Your task to perform on an android device: Open the calendar app, open the side menu, and click the "Day" option Image 0: 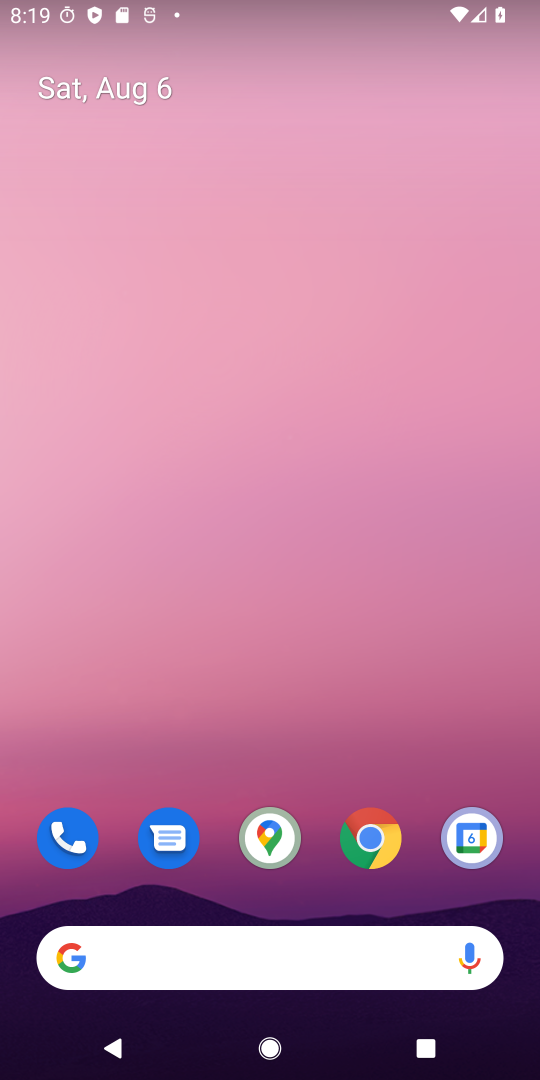
Step 0: click (462, 843)
Your task to perform on an android device: Open the calendar app, open the side menu, and click the "Day" option Image 1: 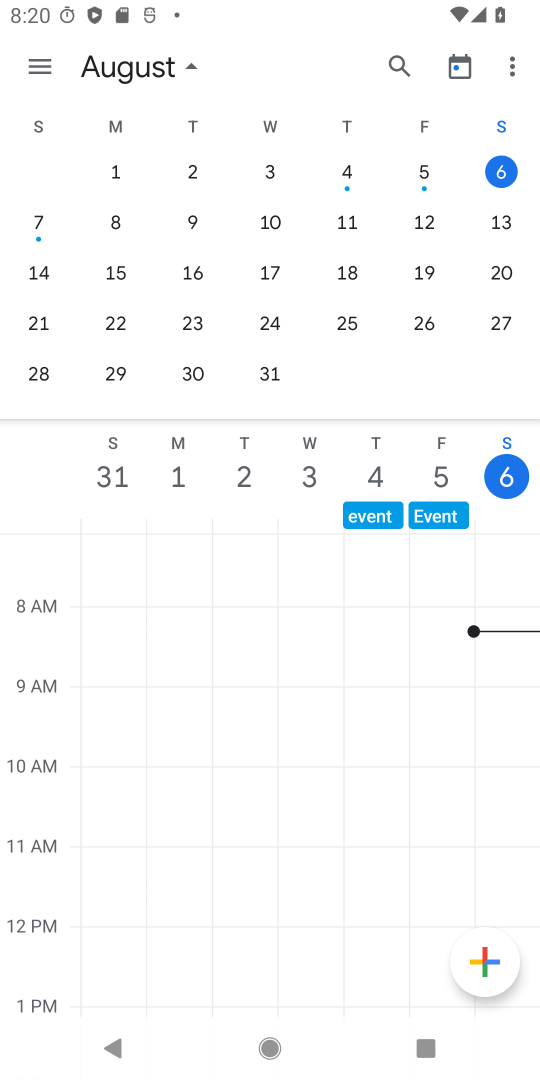
Step 1: click (41, 70)
Your task to perform on an android device: Open the calendar app, open the side menu, and click the "Day" option Image 2: 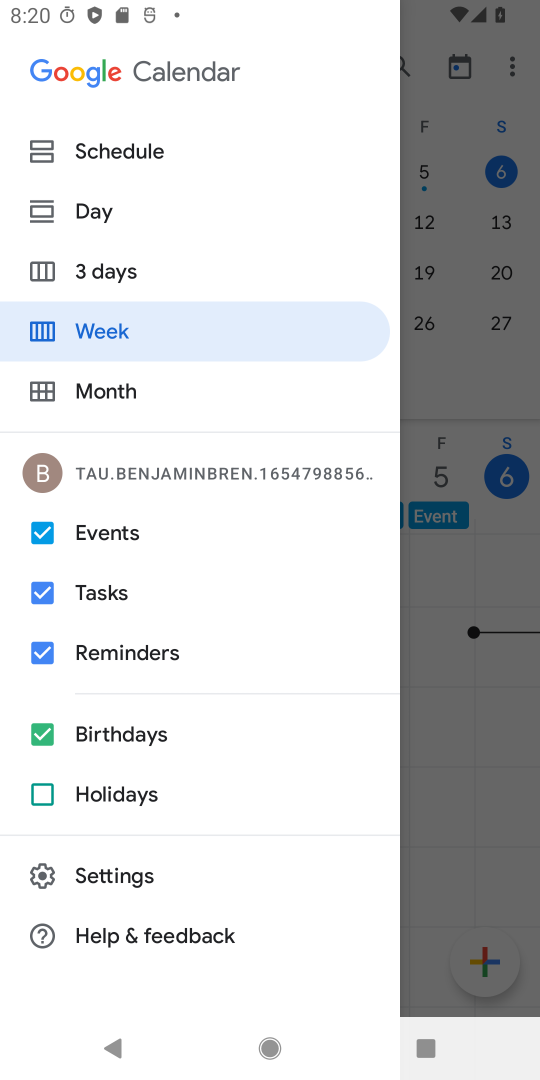
Step 2: click (89, 212)
Your task to perform on an android device: Open the calendar app, open the side menu, and click the "Day" option Image 3: 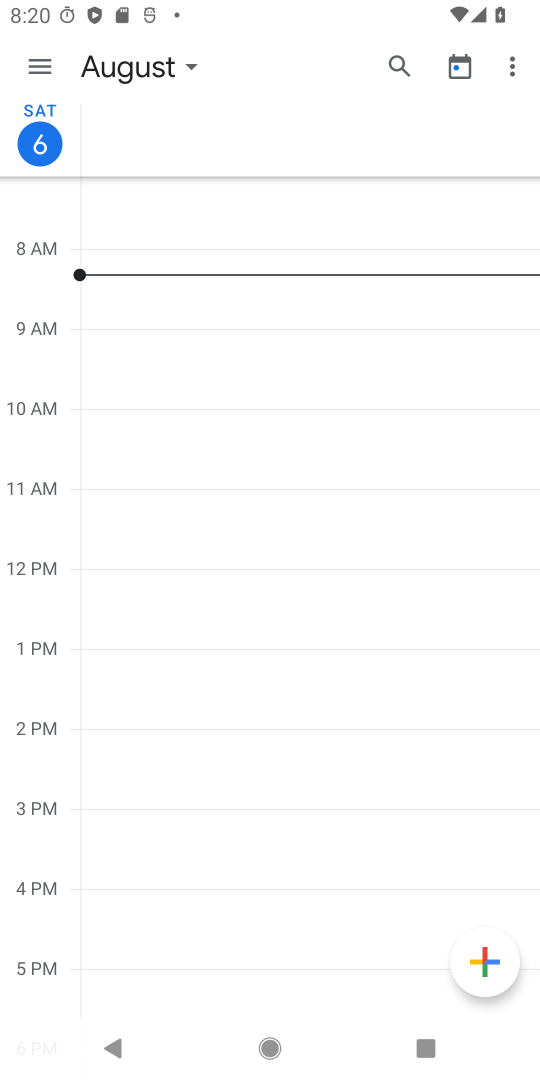
Step 3: task complete